Your task to perform on an android device: toggle pop-ups in chrome Image 0: 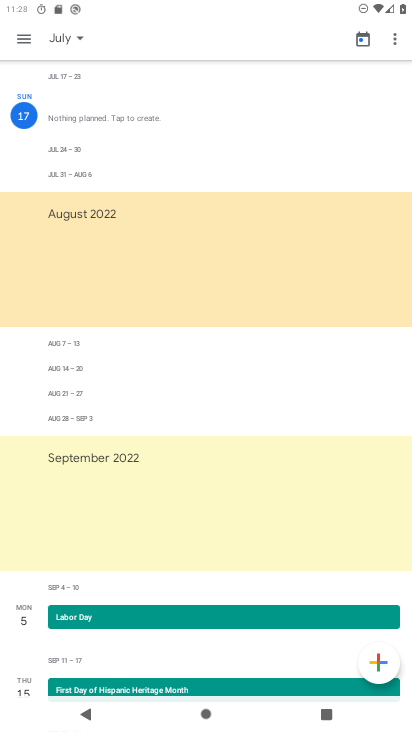
Step 0: press home button
Your task to perform on an android device: toggle pop-ups in chrome Image 1: 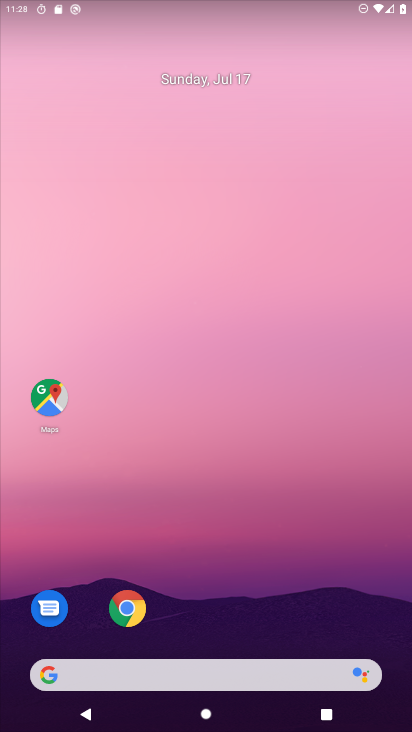
Step 1: click (117, 612)
Your task to perform on an android device: toggle pop-ups in chrome Image 2: 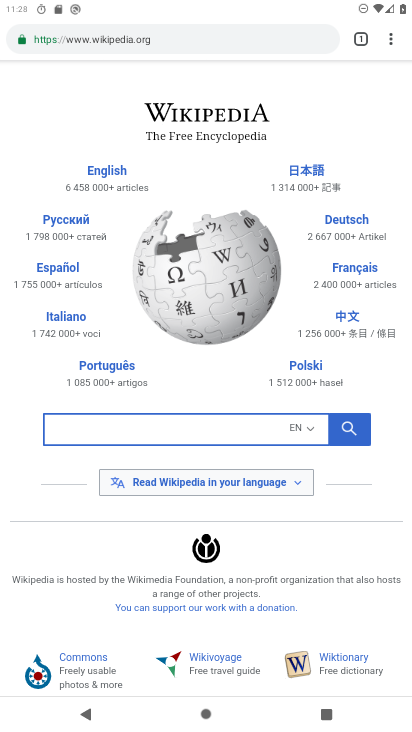
Step 2: click (396, 43)
Your task to perform on an android device: toggle pop-ups in chrome Image 3: 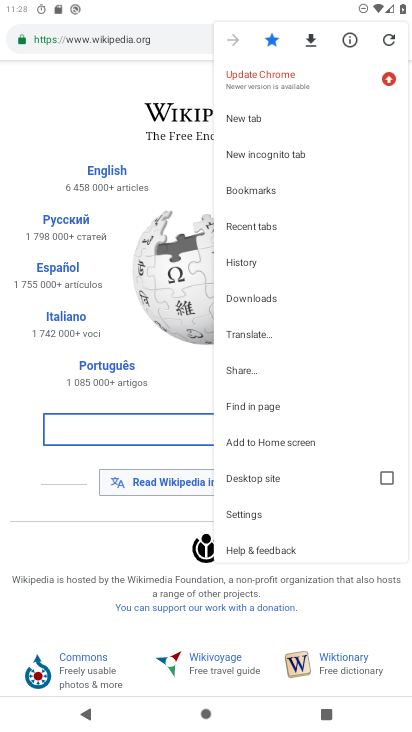
Step 3: click (251, 515)
Your task to perform on an android device: toggle pop-ups in chrome Image 4: 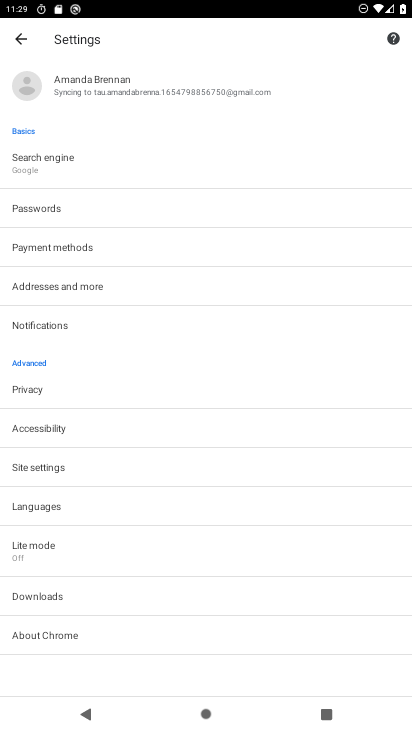
Step 4: click (66, 461)
Your task to perform on an android device: toggle pop-ups in chrome Image 5: 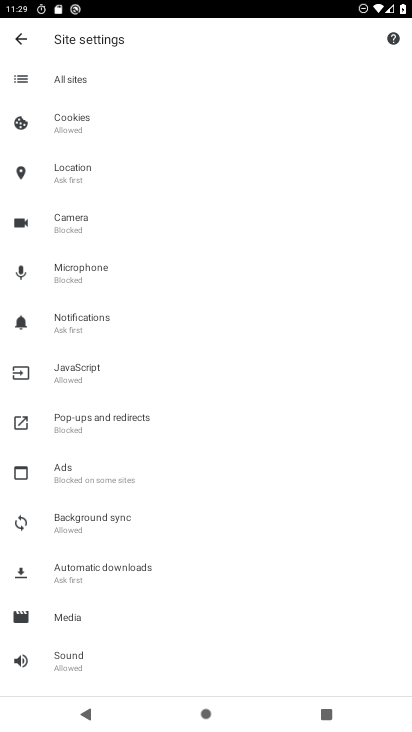
Step 5: click (101, 412)
Your task to perform on an android device: toggle pop-ups in chrome Image 6: 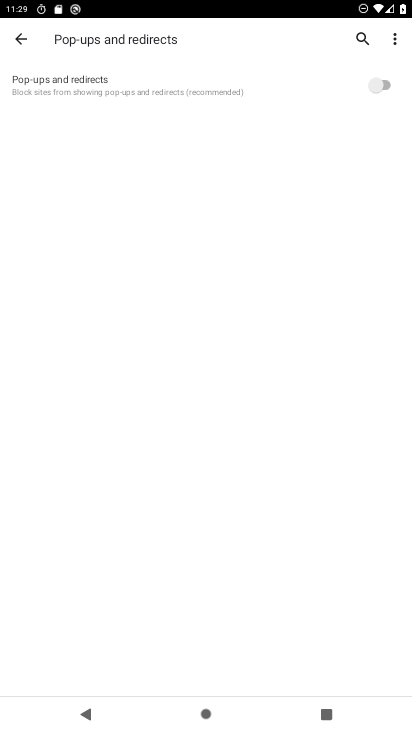
Step 6: click (371, 87)
Your task to perform on an android device: toggle pop-ups in chrome Image 7: 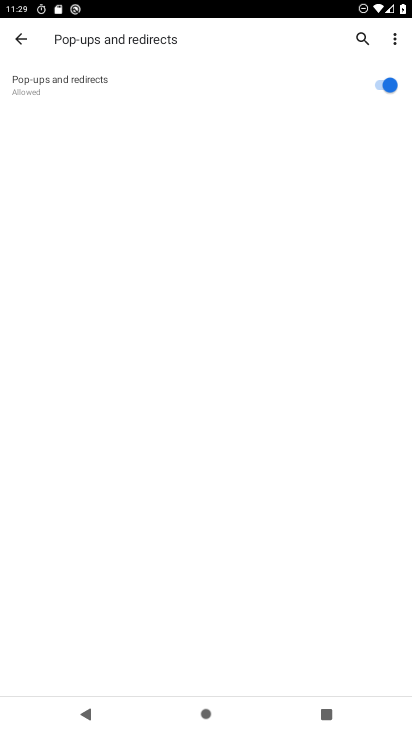
Step 7: task complete